Your task to perform on an android device: remove spam from my inbox in the gmail app Image 0: 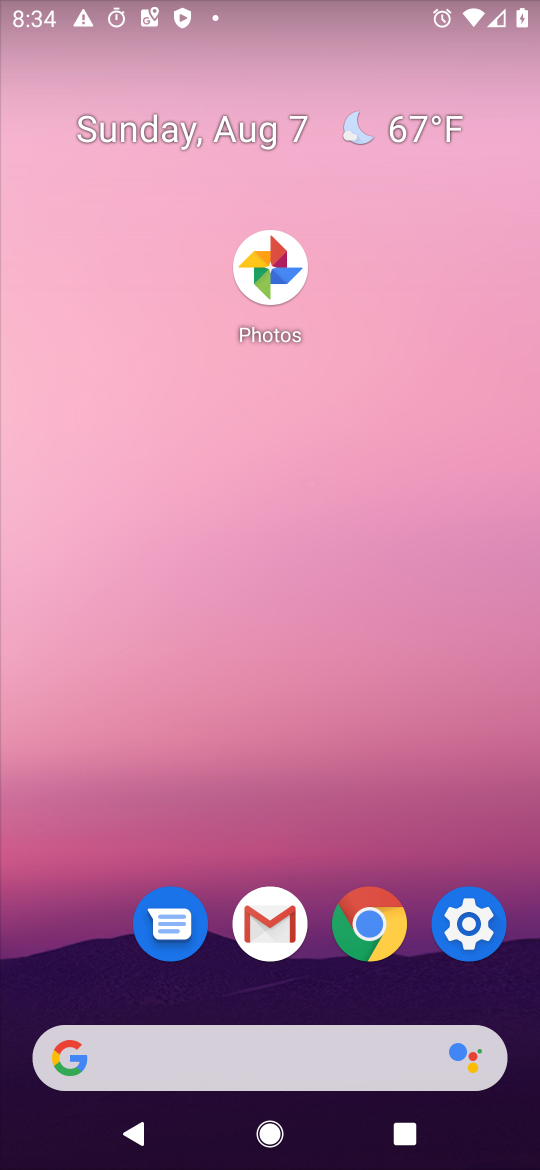
Step 0: drag from (384, 923) to (249, 222)
Your task to perform on an android device: remove spam from my inbox in the gmail app Image 1: 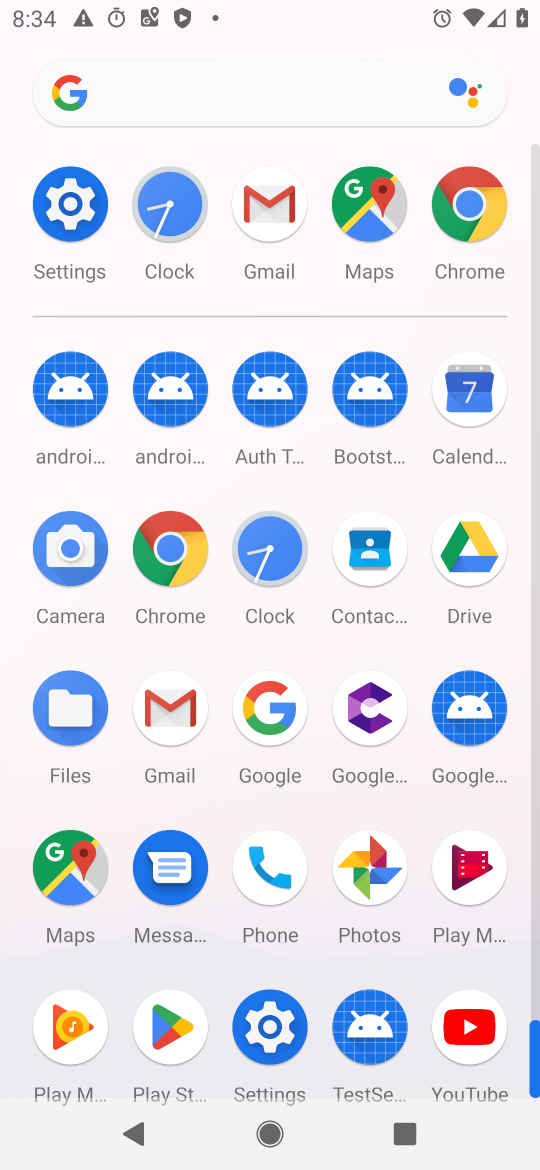
Step 1: click (278, 211)
Your task to perform on an android device: remove spam from my inbox in the gmail app Image 2: 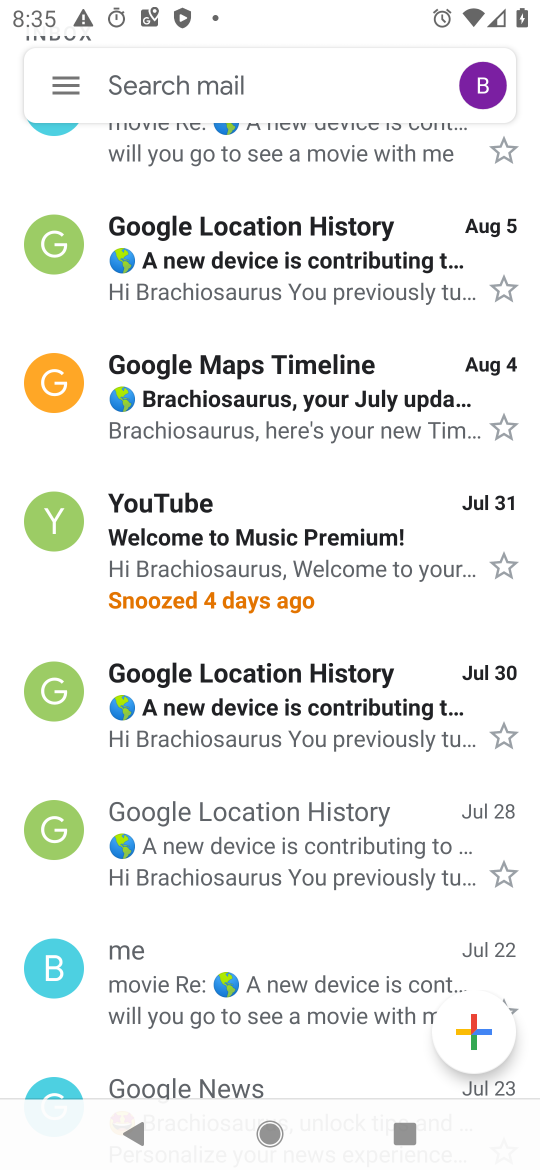
Step 2: click (67, 99)
Your task to perform on an android device: remove spam from my inbox in the gmail app Image 3: 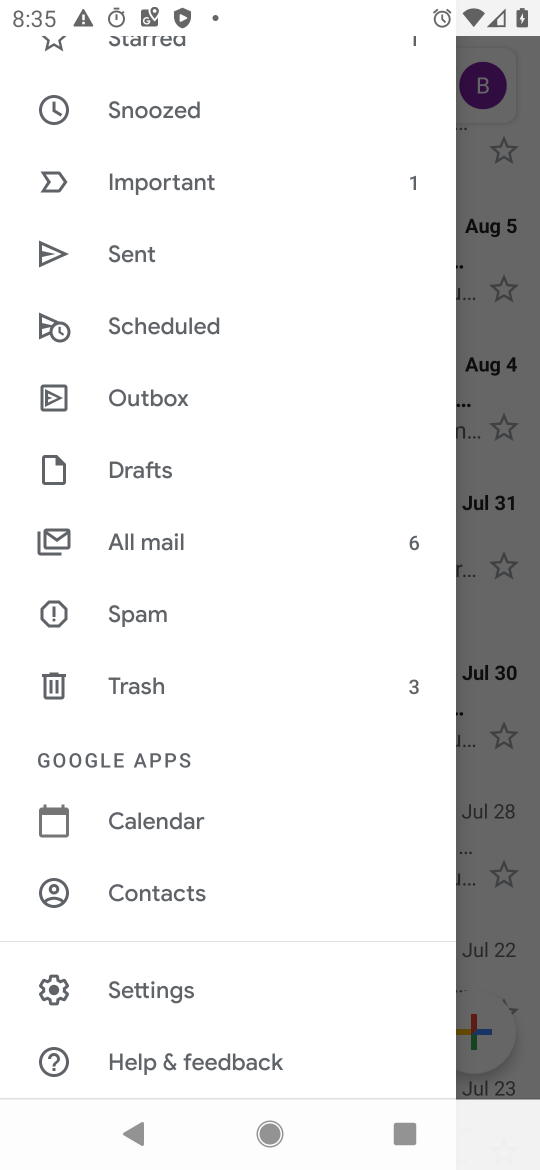
Step 3: click (152, 629)
Your task to perform on an android device: remove spam from my inbox in the gmail app Image 4: 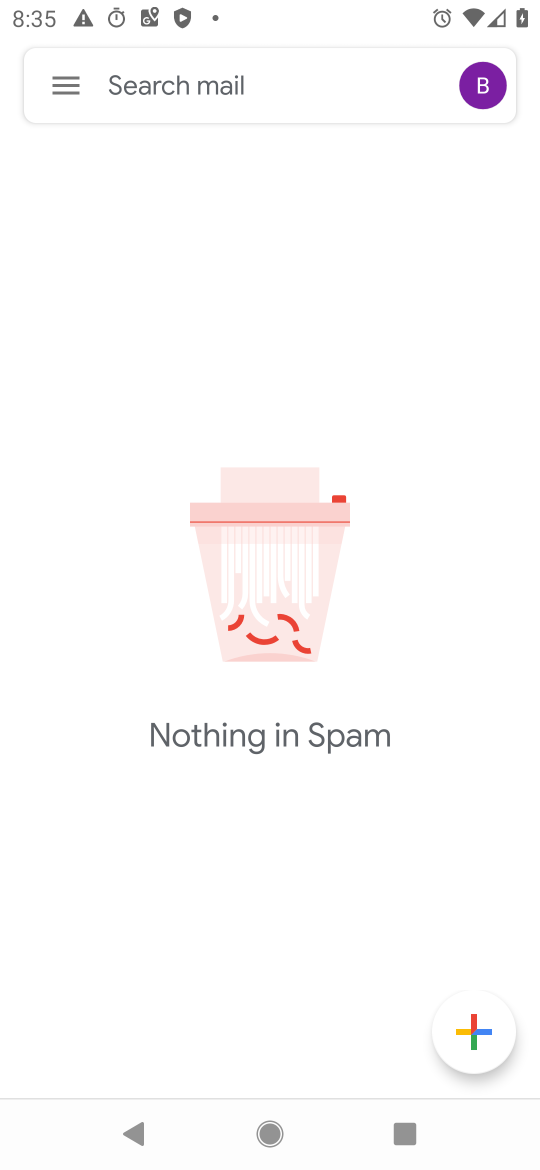
Step 4: task complete